Your task to perform on an android device: empty trash in the gmail app Image 0: 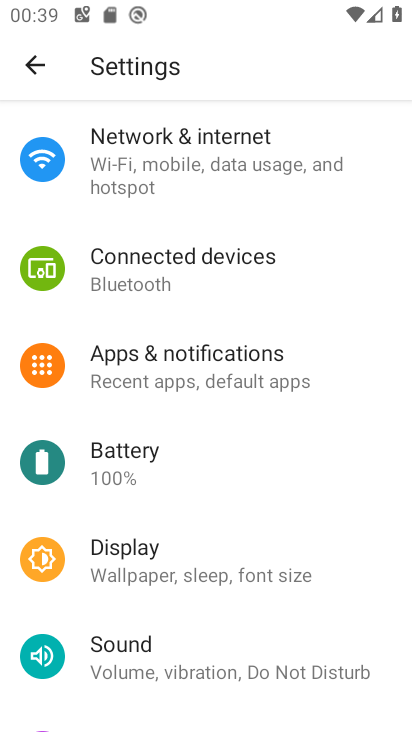
Step 0: drag from (358, 634) to (242, 253)
Your task to perform on an android device: empty trash in the gmail app Image 1: 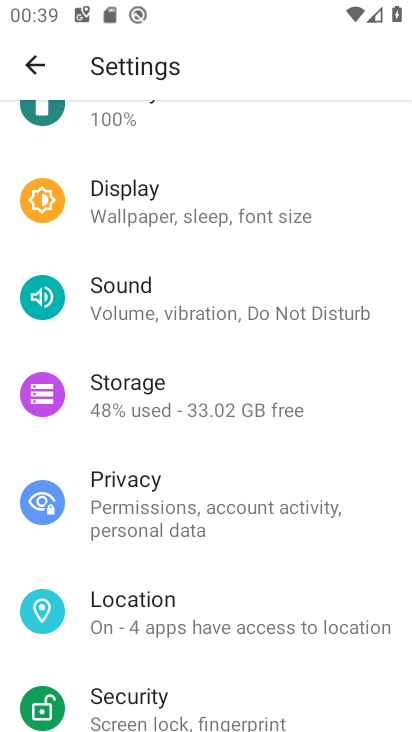
Step 1: press home button
Your task to perform on an android device: empty trash in the gmail app Image 2: 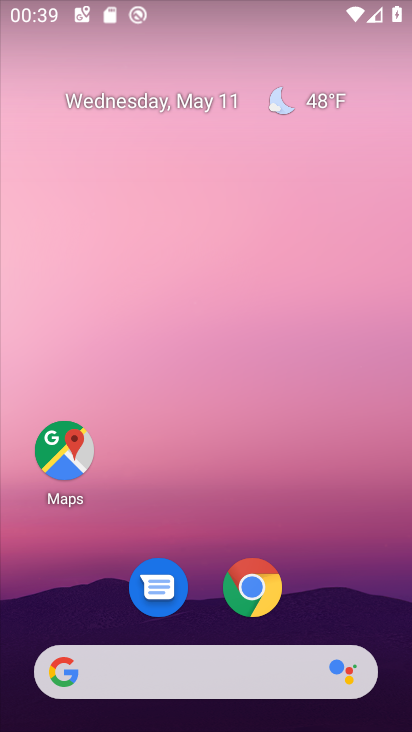
Step 2: drag from (396, 594) to (294, 331)
Your task to perform on an android device: empty trash in the gmail app Image 3: 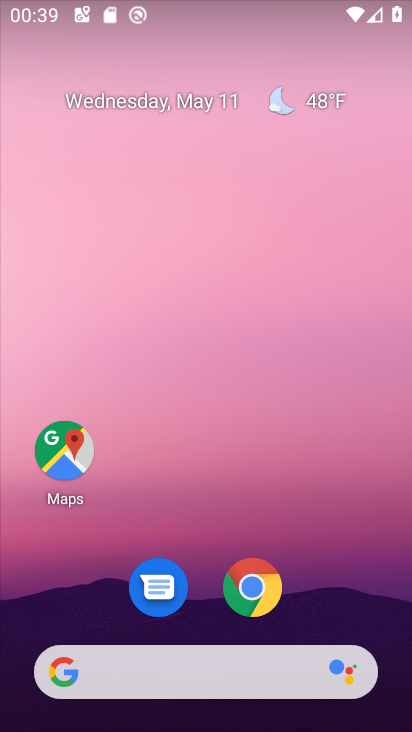
Step 3: drag from (347, 587) to (284, 222)
Your task to perform on an android device: empty trash in the gmail app Image 4: 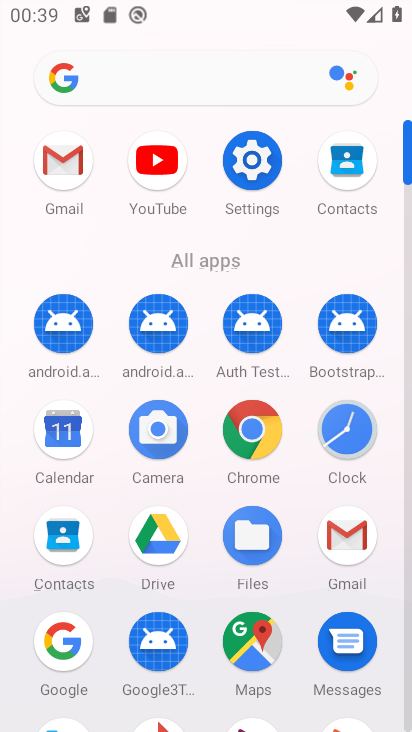
Step 4: click (67, 172)
Your task to perform on an android device: empty trash in the gmail app Image 5: 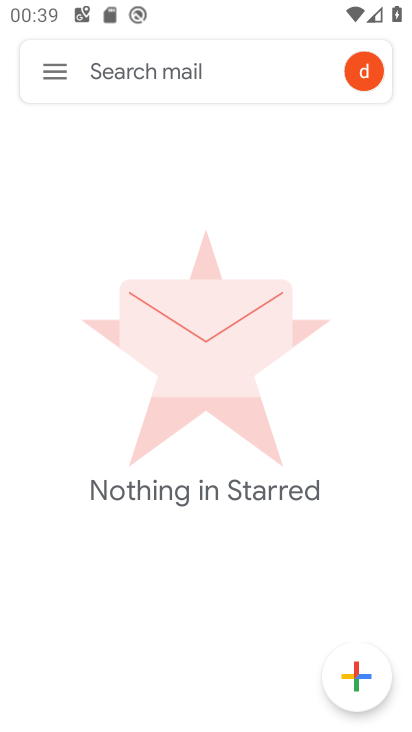
Step 5: click (57, 85)
Your task to perform on an android device: empty trash in the gmail app Image 6: 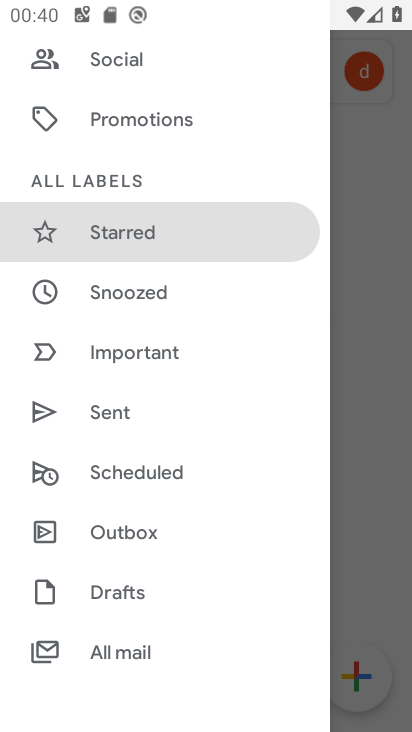
Step 6: drag from (199, 595) to (143, 382)
Your task to perform on an android device: empty trash in the gmail app Image 7: 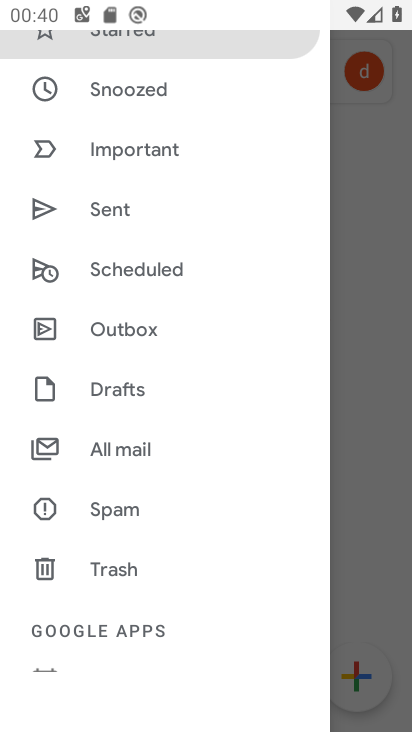
Step 7: click (96, 582)
Your task to perform on an android device: empty trash in the gmail app Image 8: 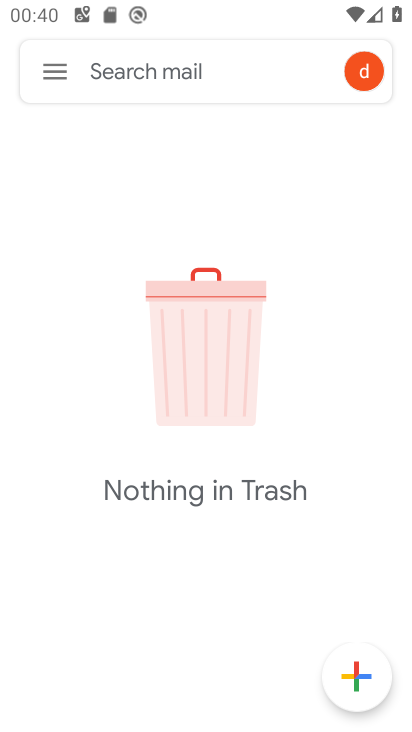
Step 8: task complete